Your task to perform on an android device: open app "AliExpress" Image 0: 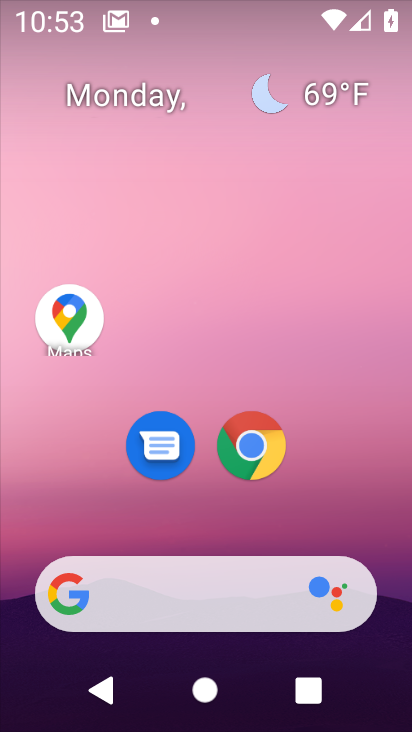
Step 0: drag from (261, 635) to (393, 1)
Your task to perform on an android device: open app "AliExpress" Image 1: 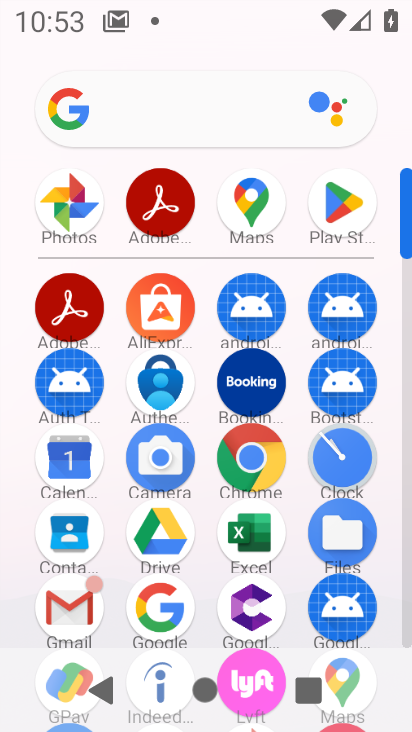
Step 1: click (351, 200)
Your task to perform on an android device: open app "AliExpress" Image 2: 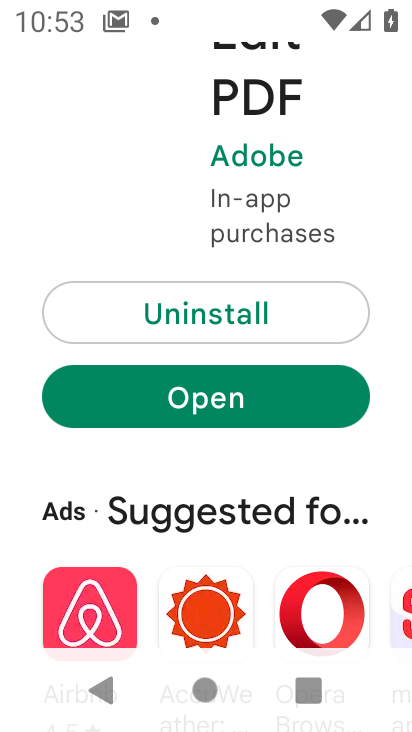
Step 2: drag from (292, 287) to (291, 573)
Your task to perform on an android device: open app "AliExpress" Image 3: 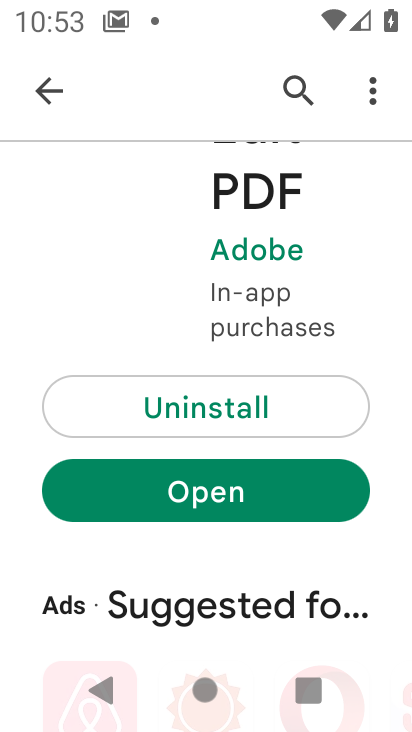
Step 3: click (51, 94)
Your task to perform on an android device: open app "AliExpress" Image 4: 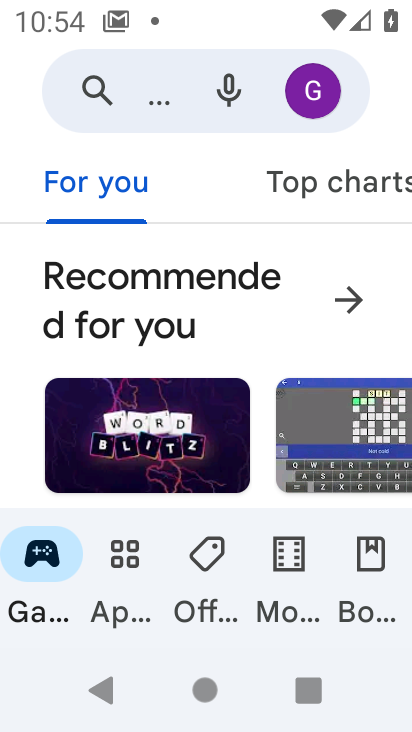
Step 4: click (102, 98)
Your task to perform on an android device: open app "AliExpress" Image 5: 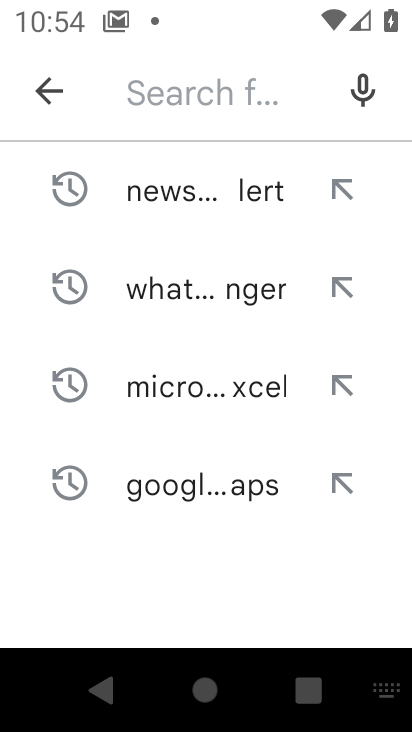
Step 5: type "AliExpress"
Your task to perform on an android device: open app "AliExpress" Image 6: 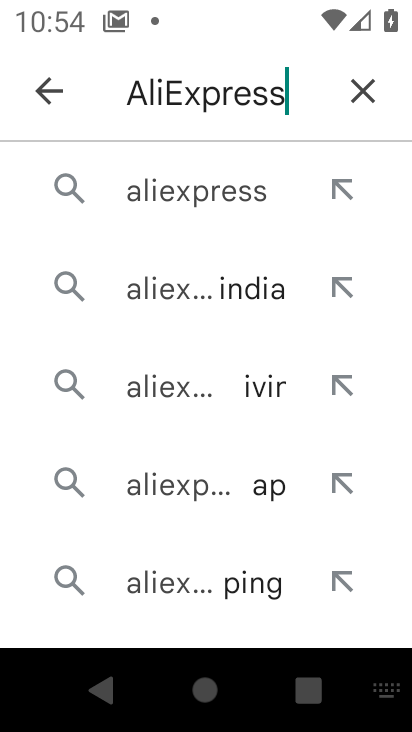
Step 6: type ""
Your task to perform on an android device: open app "AliExpress" Image 7: 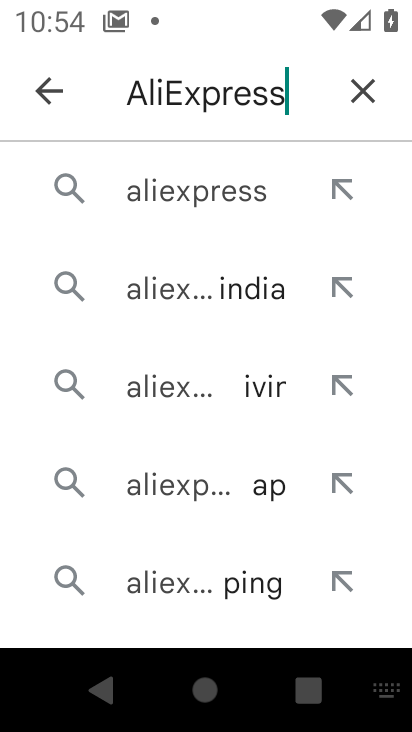
Step 7: click (202, 167)
Your task to perform on an android device: open app "AliExpress" Image 8: 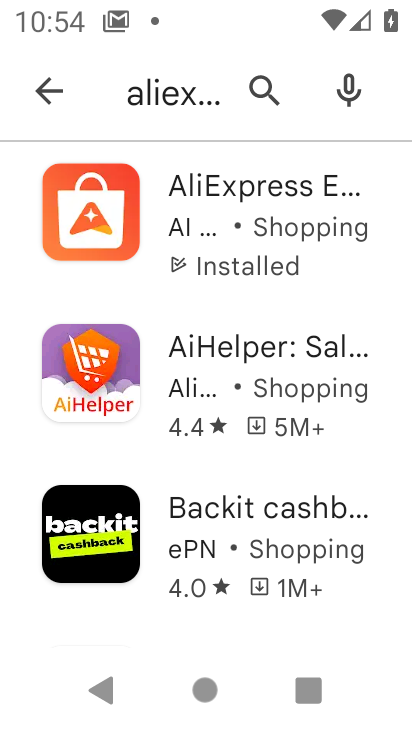
Step 8: click (248, 226)
Your task to perform on an android device: open app "AliExpress" Image 9: 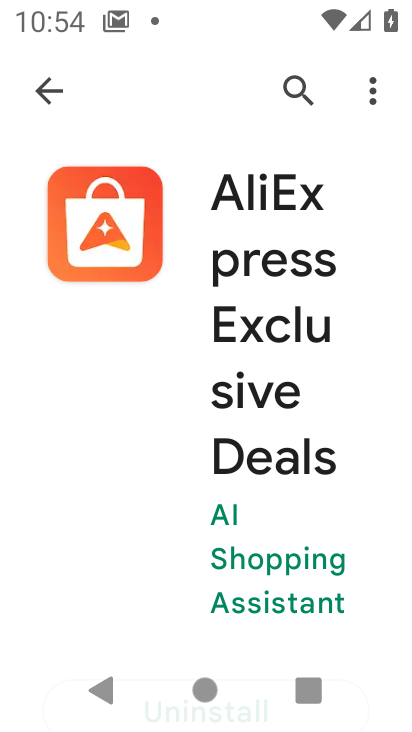
Step 9: drag from (228, 612) to (207, 153)
Your task to perform on an android device: open app "AliExpress" Image 10: 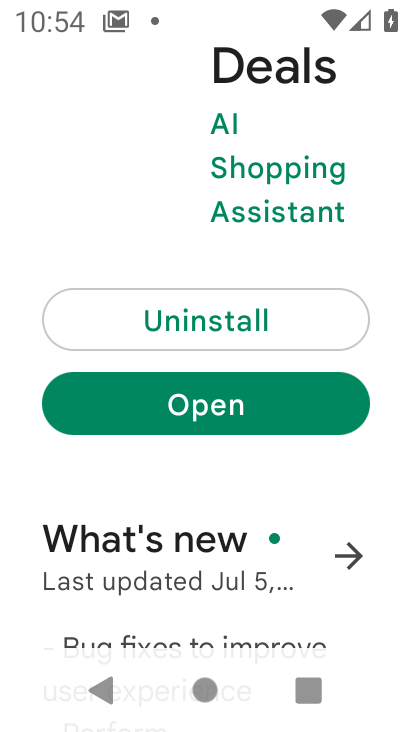
Step 10: click (245, 410)
Your task to perform on an android device: open app "AliExpress" Image 11: 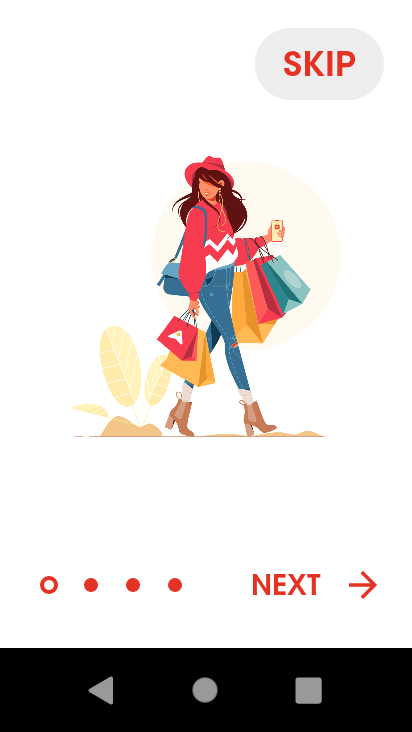
Step 11: task complete